Your task to perform on an android device: Do I have any events today? Image 0: 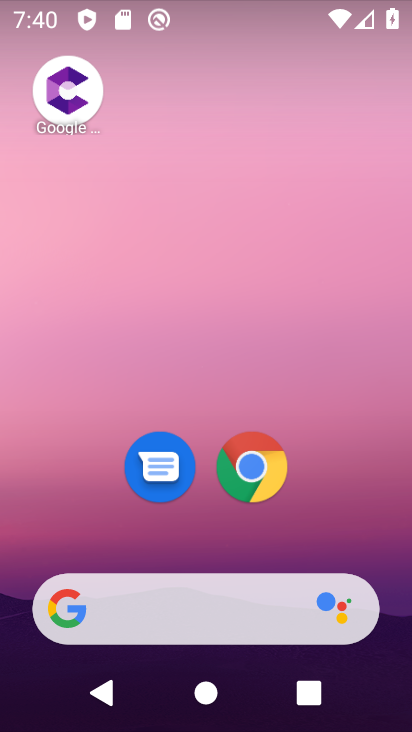
Step 0: drag from (363, 512) to (354, 4)
Your task to perform on an android device: Do I have any events today? Image 1: 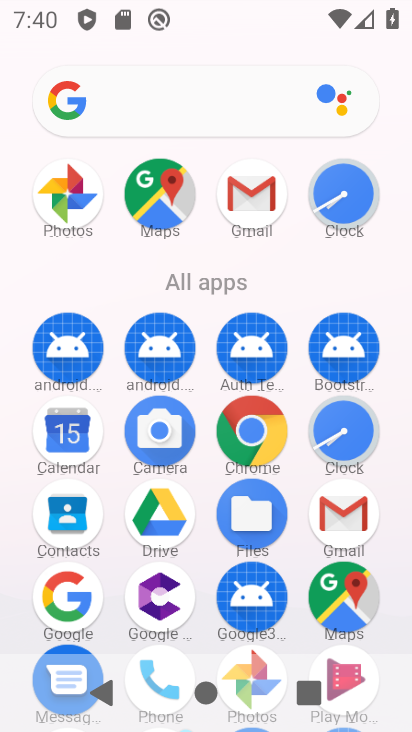
Step 1: click (68, 427)
Your task to perform on an android device: Do I have any events today? Image 2: 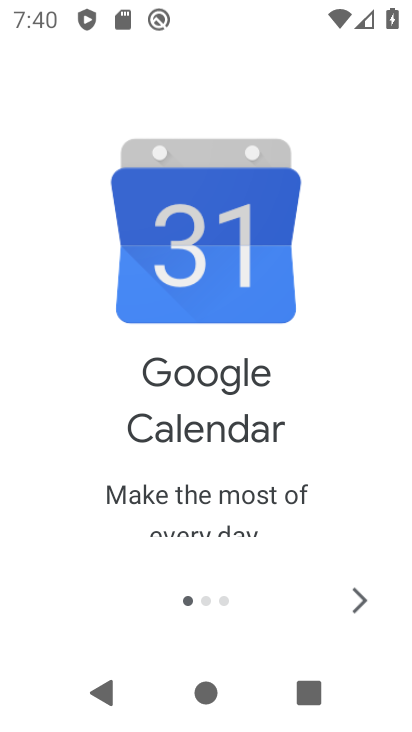
Step 2: click (366, 602)
Your task to perform on an android device: Do I have any events today? Image 3: 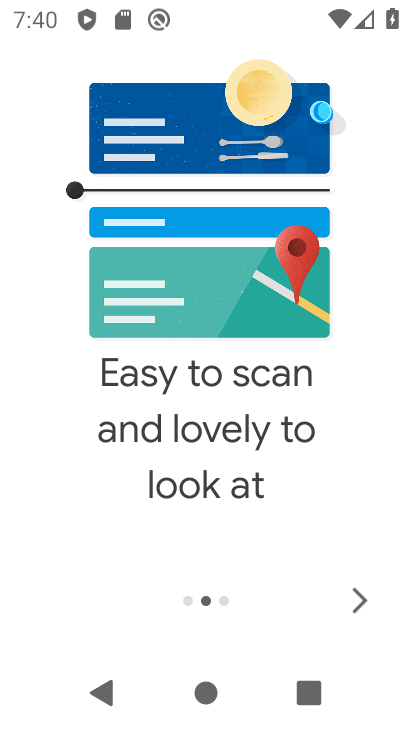
Step 3: click (368, 593)
Your task to perform on an android device: Do I have any events today? Image 4: 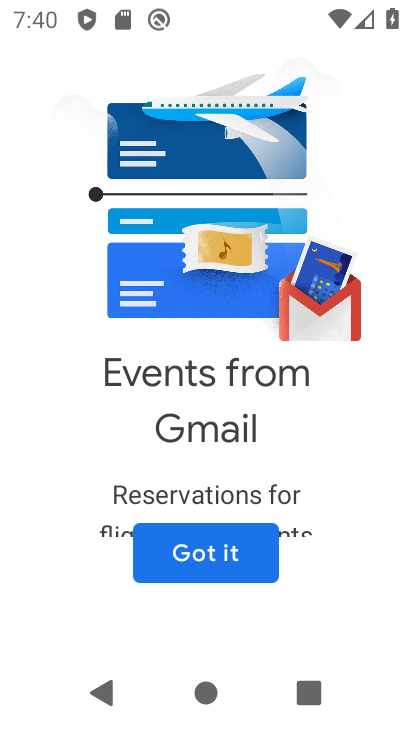
Step 4: click (221, 563)
Your task to perform on an android device: Do I have any events today? Image 5: 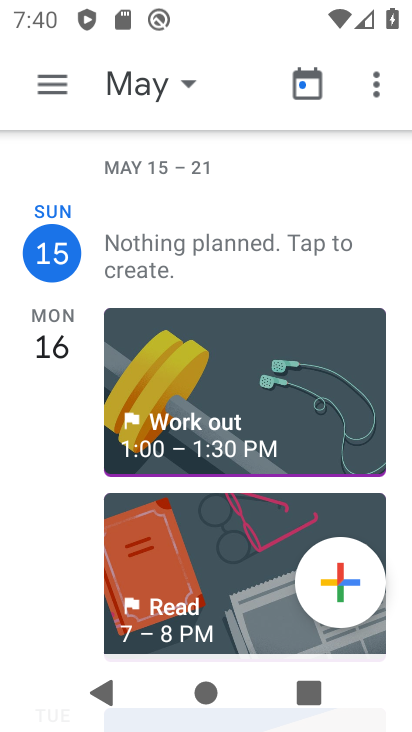
Step 5: click (54, 88)
Your task to perform on an android device: Do I have any events today? Image 6: 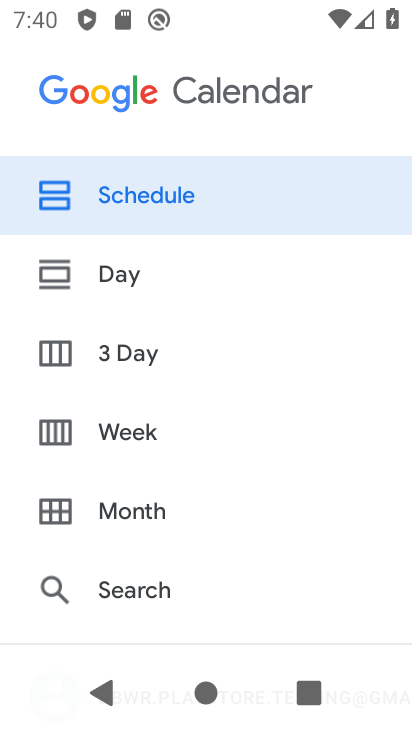
Step 6: drag from (150, 495) to (111, 133)
Your task to perform on an android device: Do I have any events today? Image 7: 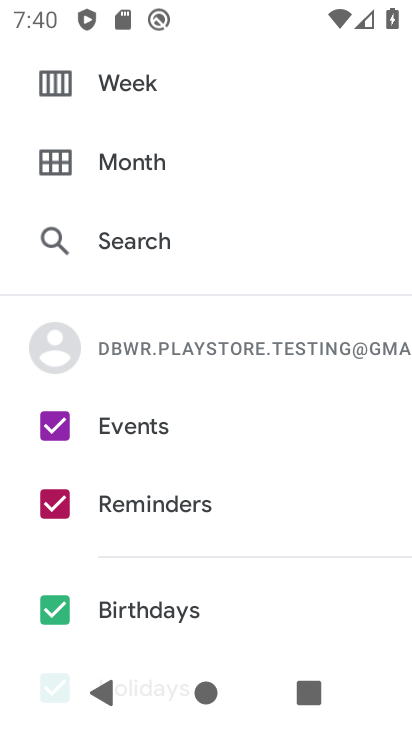
Step 7: click (50, 506)
Your task to perform on an android device: Do I have any events today? Image 8: 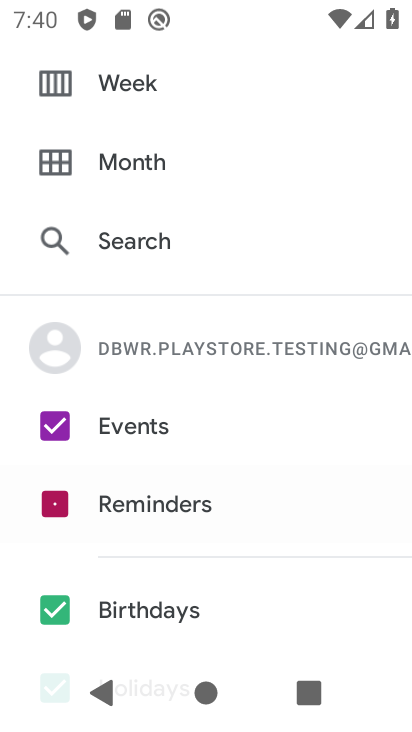
Step 8: click (50, 620)
Your task to perform on an android device: Do I have any events today? Image 9: 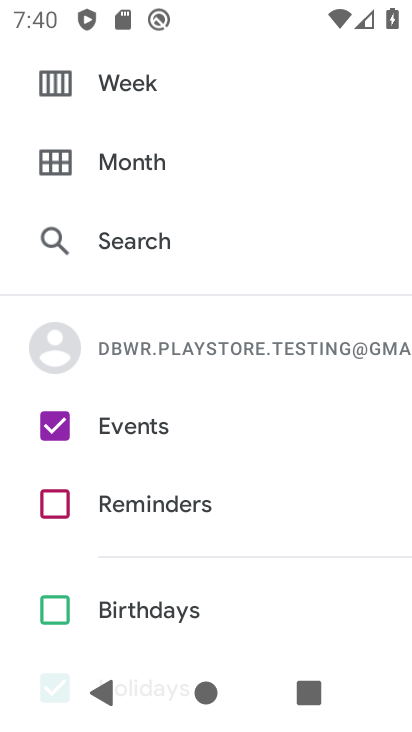
Step 9: drag from (275, 615) to (260, 368)
Your task to perform on an android device: Do I have any events today? Image 10: 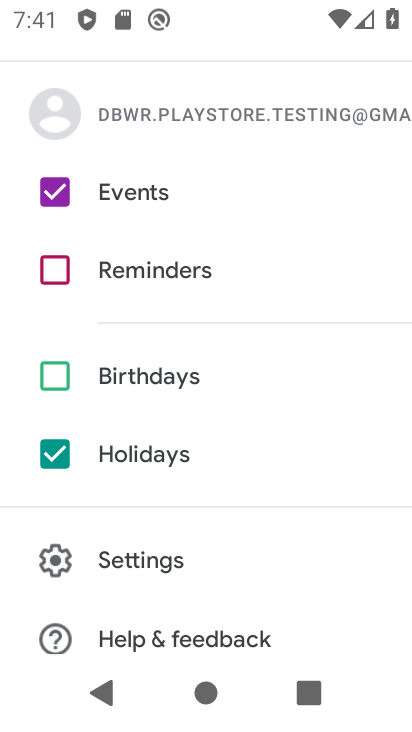
Step 10: click (56, 451)
Your task to perform on an android device: Do I have any events today? Image 11: 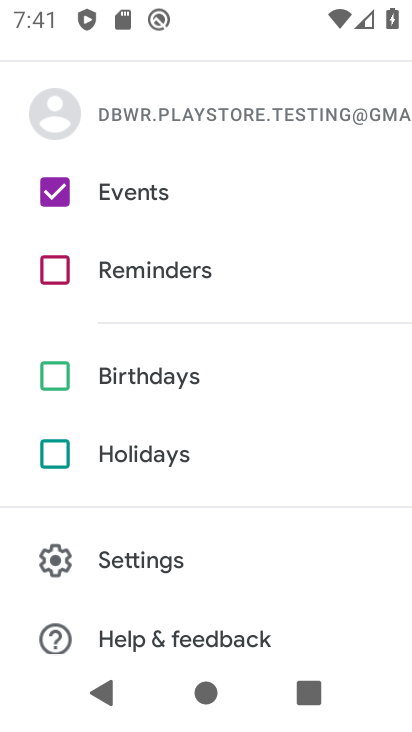
Step 11: drag from (144, 299) to (126, 657)
Your task to perform on an android device: Do I have any events today? Image 12: 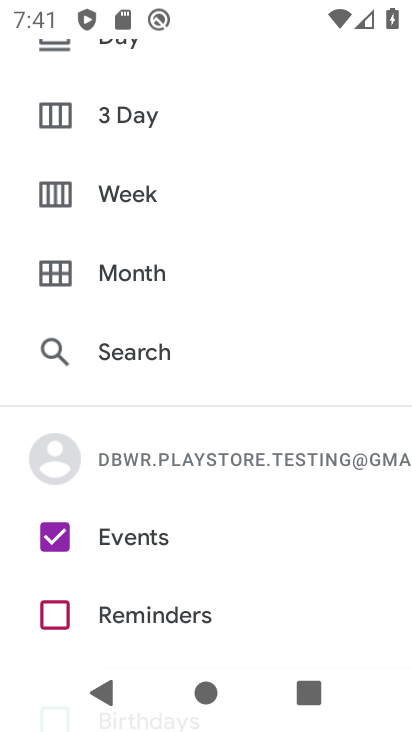
Step 12: drag from (119, 121) to (138, 416)
Your task to perform on an android device: Do I have any events today? Image 13: 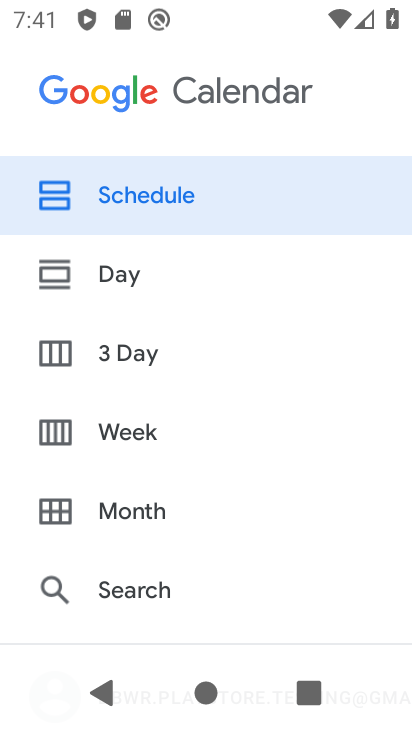
Step 13: click (62, 195)
Your task to perform on an android device: Do I have any events today? Image 14: 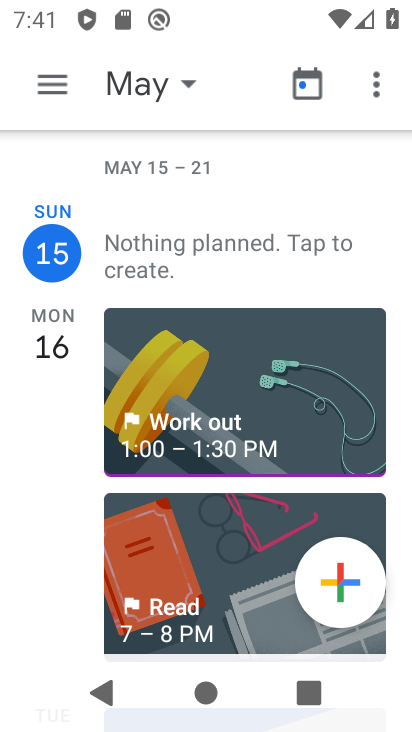
Step 14: click (185, 249)
Your task to perform on an android device: Do I have any events today? Image 15: 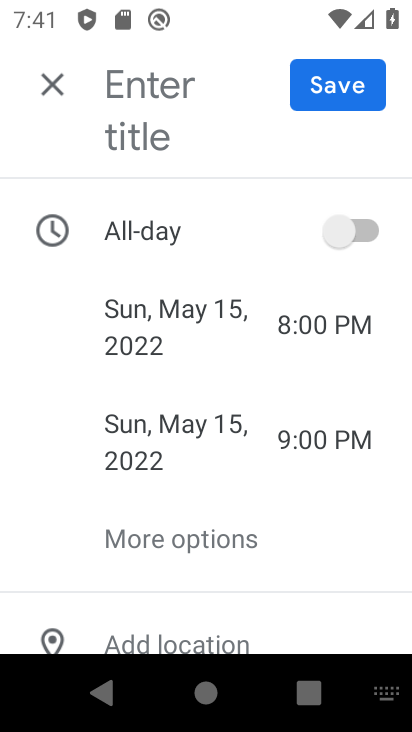
Step 15: task complete